Your task to perform on an android device: Go to privacy settings Image 0: 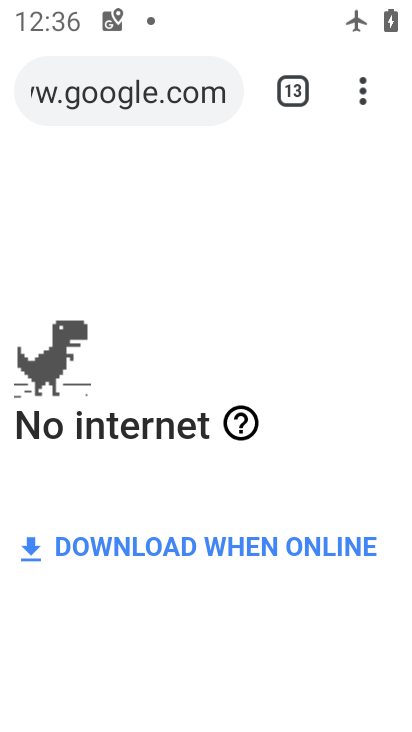
Step 0: press home button
Your task to perform on an android device: Go to privacy settings Image 1: 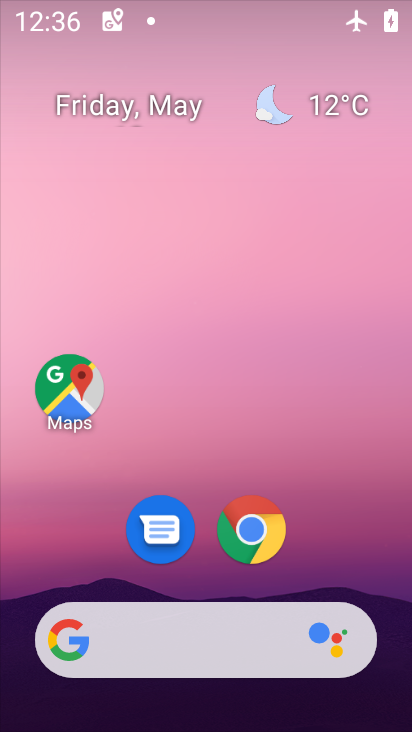
Step 1: drag from (328, 330) to (324, 262)
Your task to perform on an android device: Go to privacy settings Image 2: 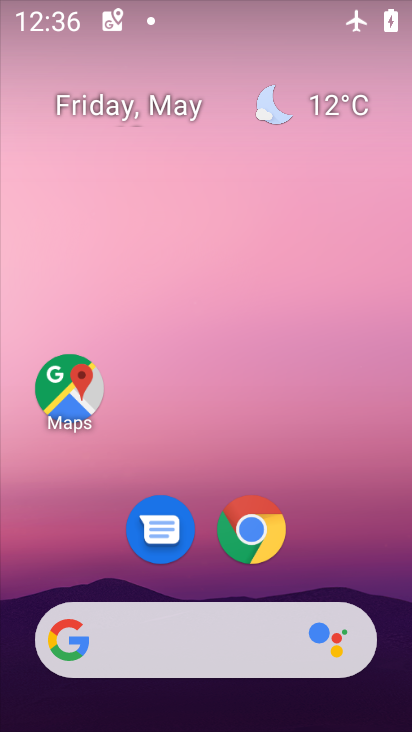
Step 2: drag from (294, 333) to (273, 212)
Your task to perform on an android device: Go to privacy settings Image 3: 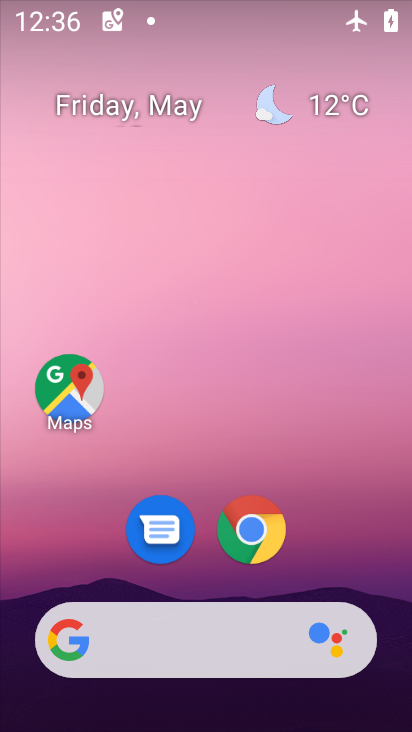
Step 3: drag from (302, 379) to (301, 118)
Your task to perform on an android device: Go to privacy settings Image 4: 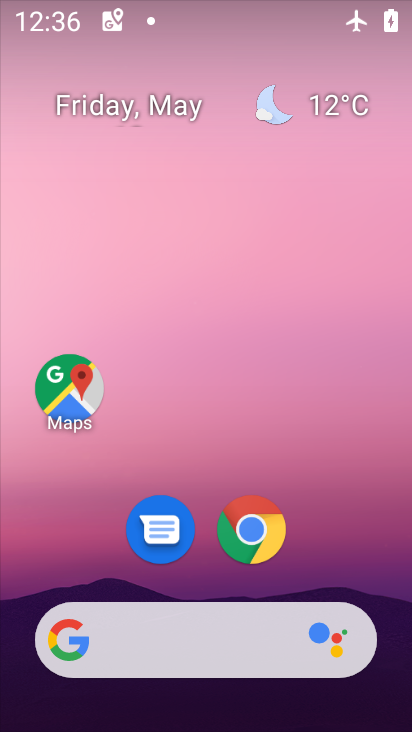
Step 4: drag from (257, 196) to (245, 126)
Your task to perform on an android device: Go to privacy settings Image 5: 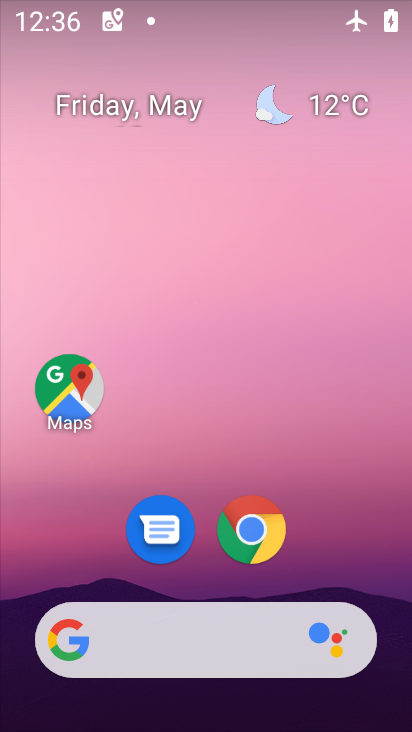
Step 5: drag from (168, 615) to (251, 62)
Your task to perform on an android device: Go to privacy settings Image 6: 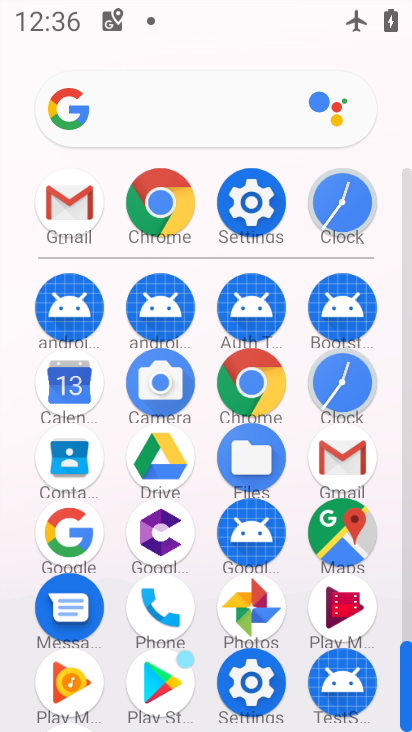
Step 6: click (231, 209)
Your task to perform on an android device: Go to privacy settings Image 7: 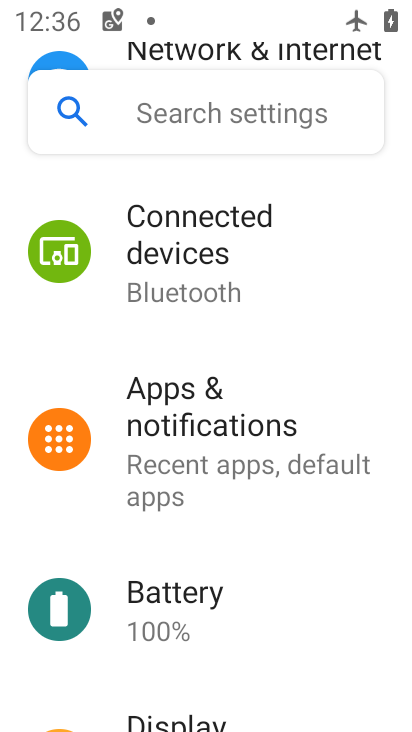
Step 7: drag from (239, 247) to (210, 132)
Your task to perform on an android device: Go to privacy settings Image 8: 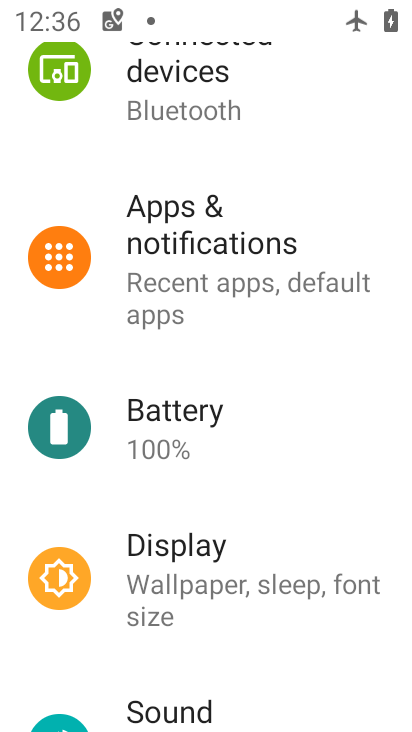
Step 8: drag from (158, 641) to (237, 130)
Your task to perform on an android device: Go to privacy settings Image 9: 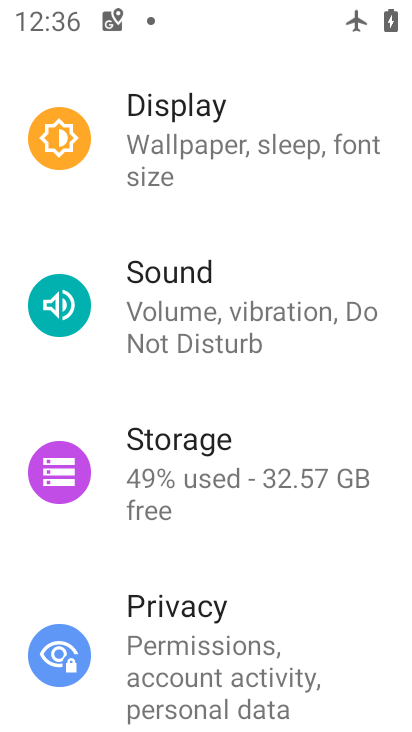
Step 9: click (145, 637)
Your task to perform on an android device: Go to privacy settings Image 10: 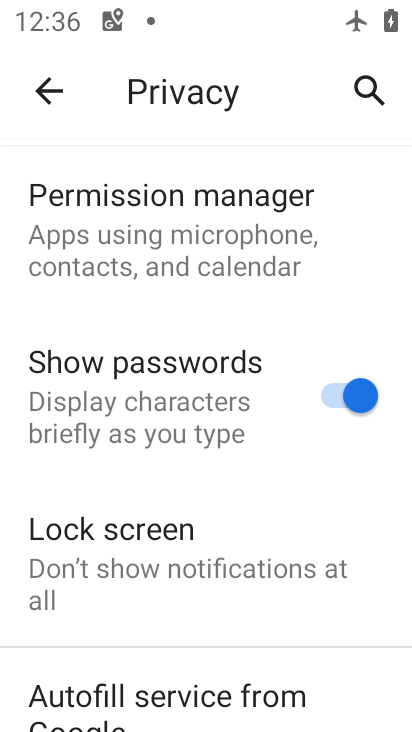
Step 10: drag from (170, 663) to (225, 214)
Your task to perform on an android device: Go to privacy settings Image 11: 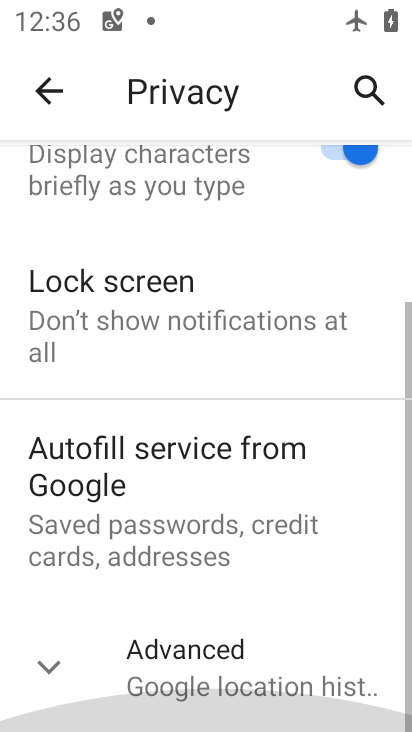
Step 11: drag from (129, 611) to (183, 287)
Your task to perform on an android device: Go to privacy settings Image 12: 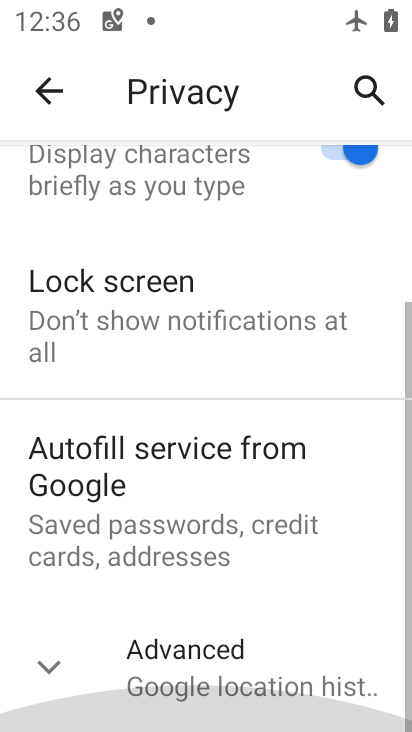
Step 12: drag from (210, 521) to (246, 227)
Your task to perform on an android device: Go to privacy settings Image 13: 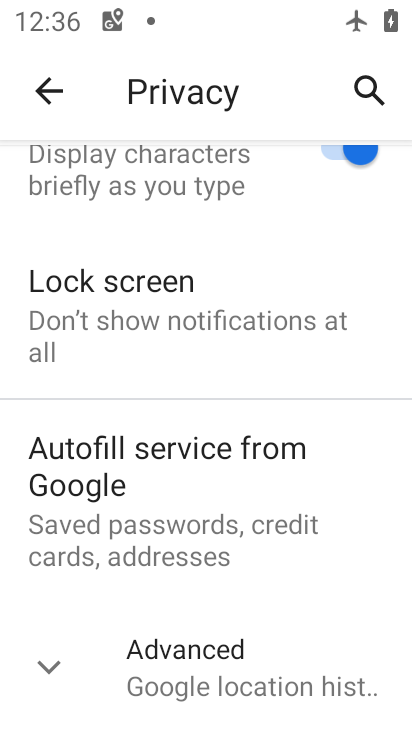
Step 13: drag from (220, 236) to (225, 541)
Your task to perform on an android device: Go to privacy settings Image 14: 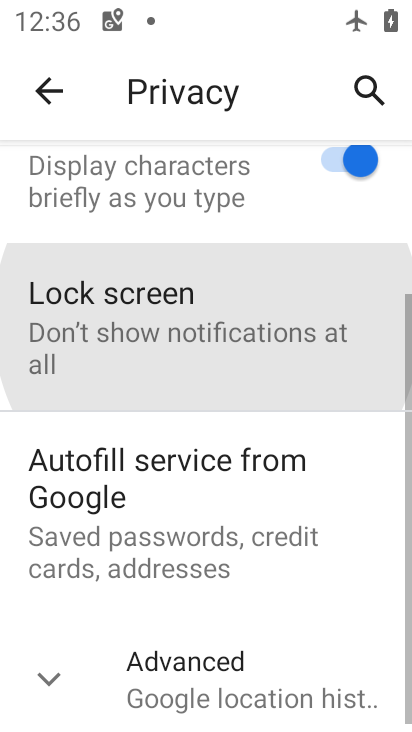
Step 14: click (219, 593)
Your task to perform on an android device: Go to privacy settings Image 15: 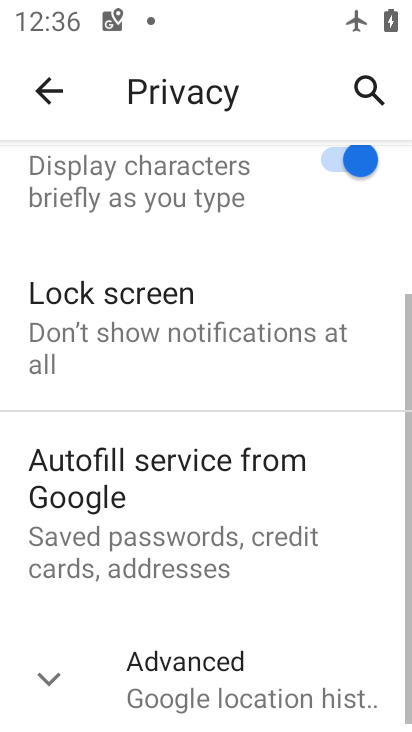
Step 15: drag from (159, 513) to (161, 584)
Your task to perform on an android device: Go to privacy settings Image 16: 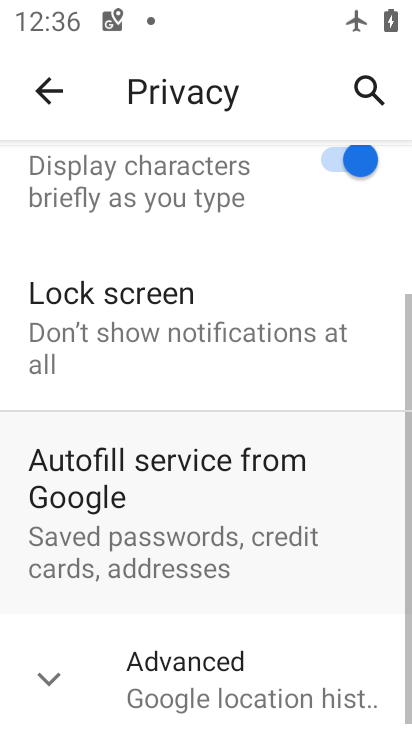
Step 16: drag from (178, 311) to (178, 608)
Your task to perform on an android device: Go to privacy settings Image 17: 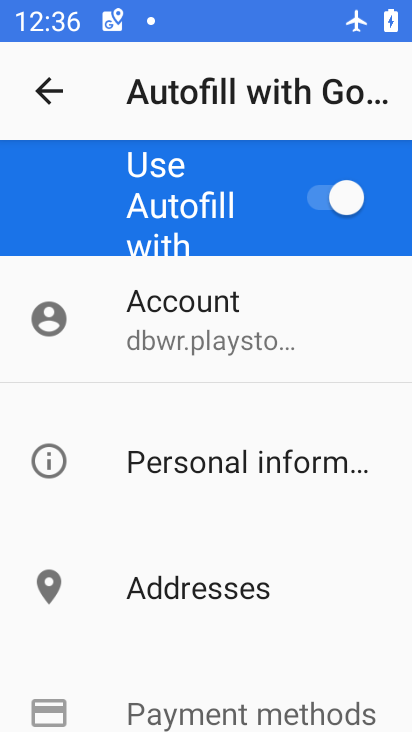
Step 17: click (44, 77)
Your task to perform on an android device: Go to privacy settings Image 18: 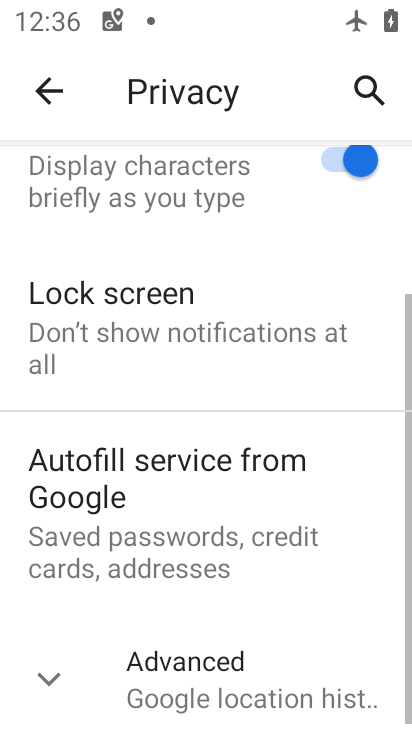
Step 18: task complete